Your task to perform on an android device: toggle data saver in the chrome app Image 0: 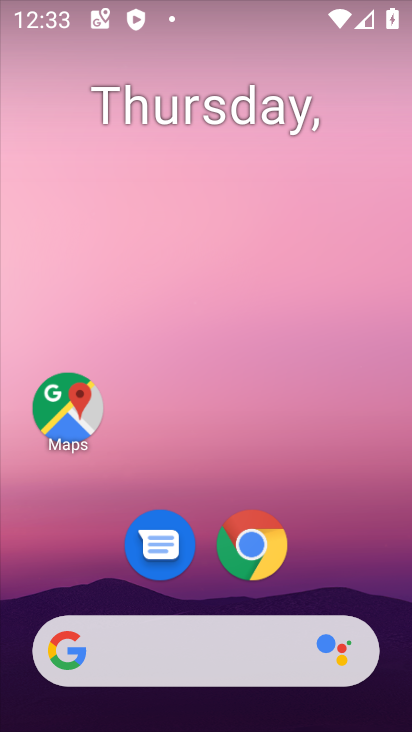
Step 0: drag from (225, 591) to (216, 267)
Your task to perform on an android device: toggle data saver in the chrome app Image 1: 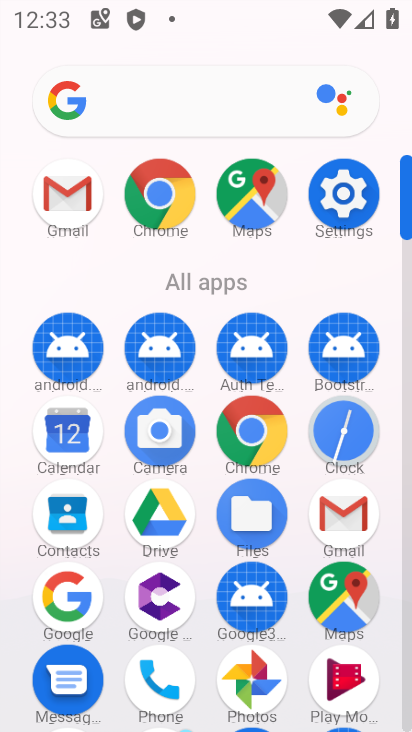
Step 1: click (253, 445)
Your task to perform on an android device: toggle data saver in the chrome app Image 2: 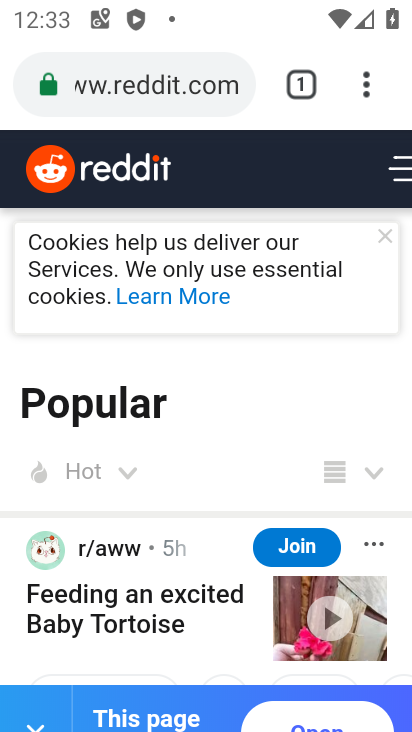
Step 2: click (370, 85)
Your task to perform on an android device: toggle data saver in the chrome app Image 3: 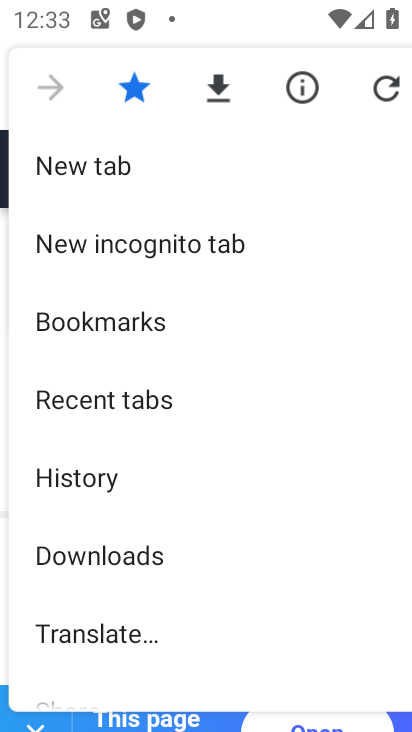
Step 3: drag from (239, 512) to (241, 227)
Your task to perform on an android device: toggle data saver in the chrome app Image 4: 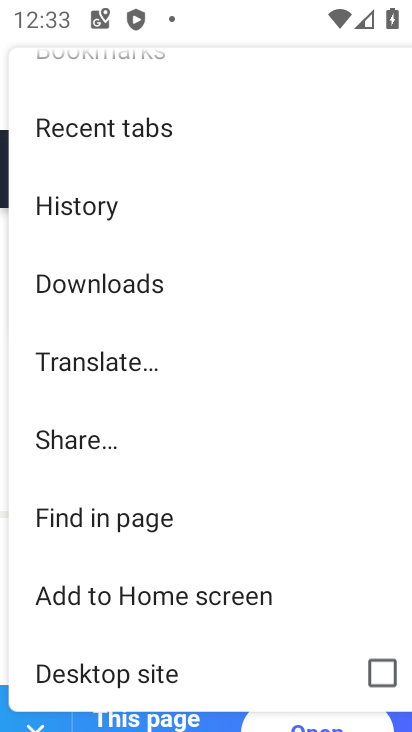
Step 4: drag from (202, 547) to (205, 282)
Your task to perform on an android device: toggle data saver in the chrome app Image 5: 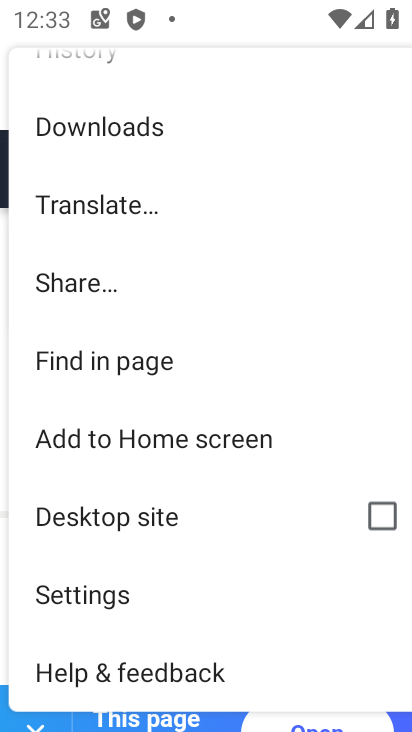
Step 5: click (161, 611)
Your task to perform on an android device: toggle data saver in the chrome app Image 6: 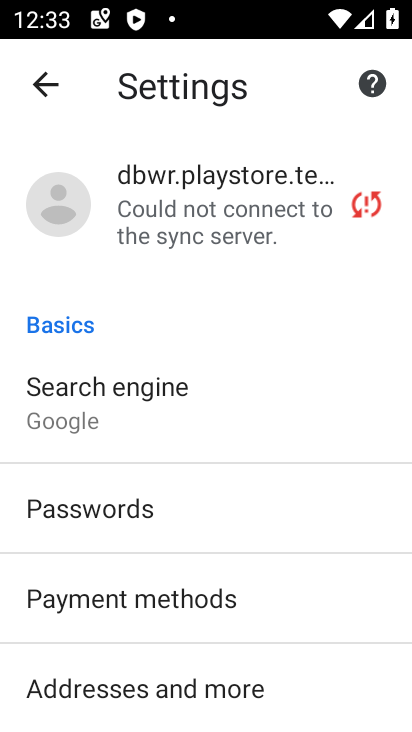
Step 6: drag from (186, 670) to (232, 217)
Your task to perform on an android device: toggle data saver in the chrome app Image 7: 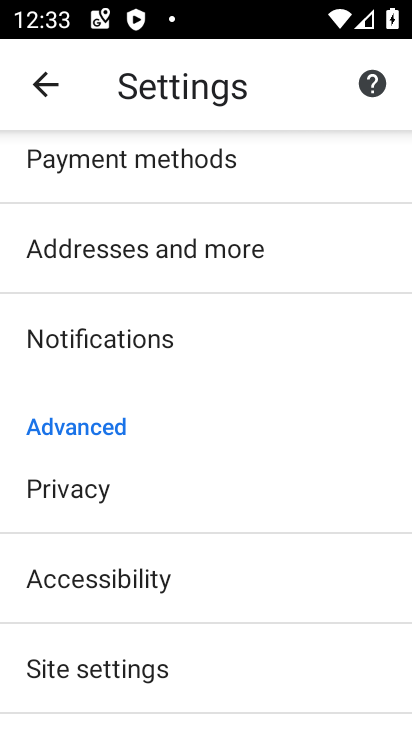
Step 7: drag from (196, 630) to (176, 305)
Your task to perform on an android device: toggle data saver in the chrome app Image 8: 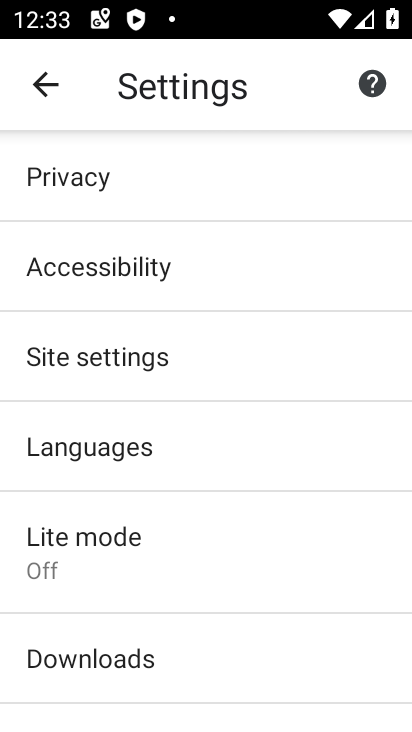
Step 8: click (122, 558)
Your task to perform on an android device: toggle data saver in the chrome app Image 9: 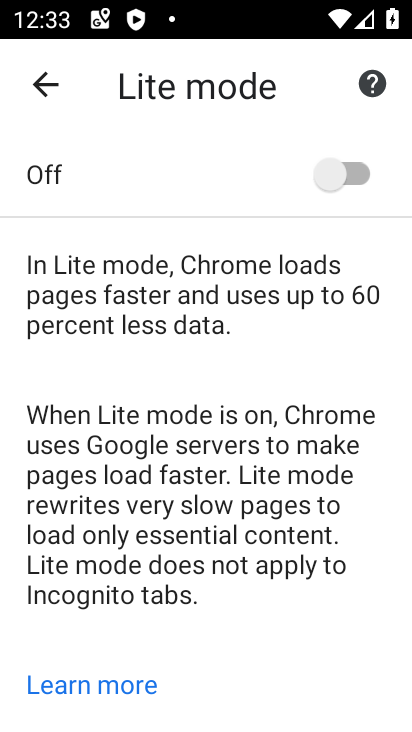
Step 9: click (338, 172)
Your task to perform on an android device: toggle data saver in the chrome app Image 10: 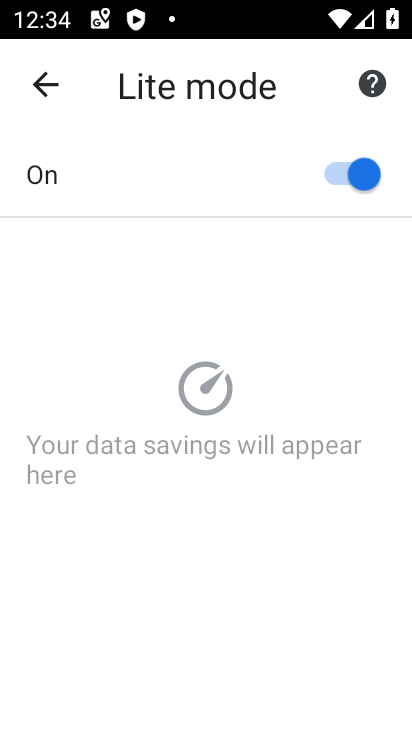
Step 10: task complete